Your task to perform on an android device: Go to display settings Image 0: 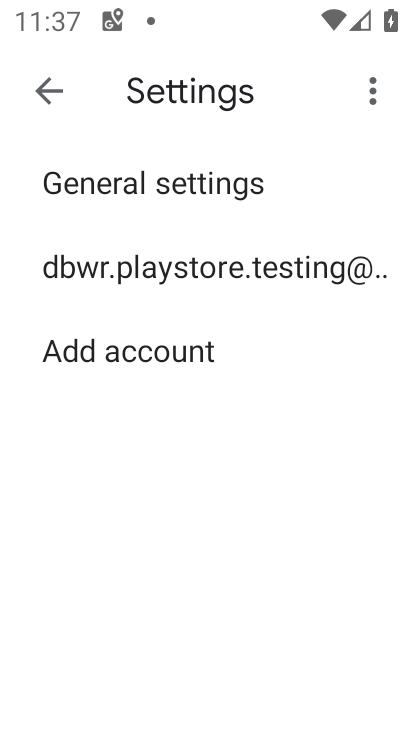
Step 0: press home button
Your task to perform on an android device: Go to display settings Image 1: 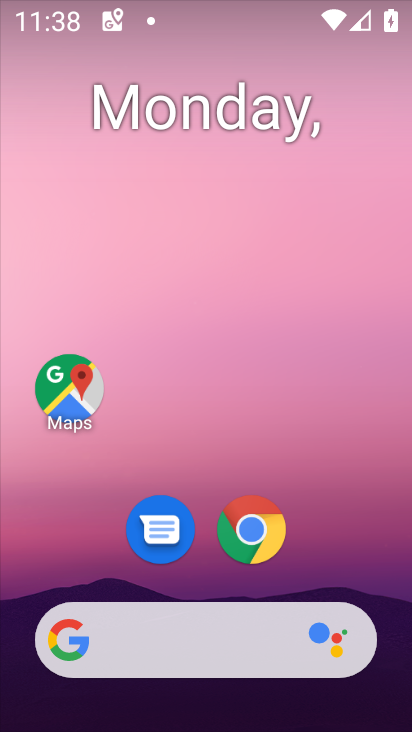
Step 1: drag from (284, 670) to (332, 162)
Your task to perform on an android device: Go to display settings Image 2: 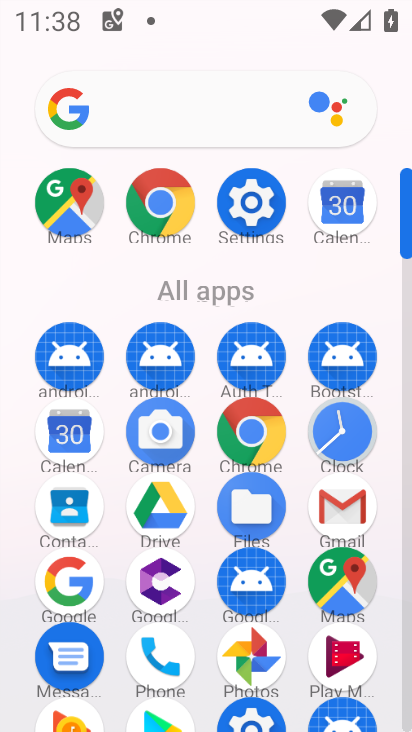
Step 2: click (245, 212)
Your task to perform on an android device: Go to display settings Image 3: 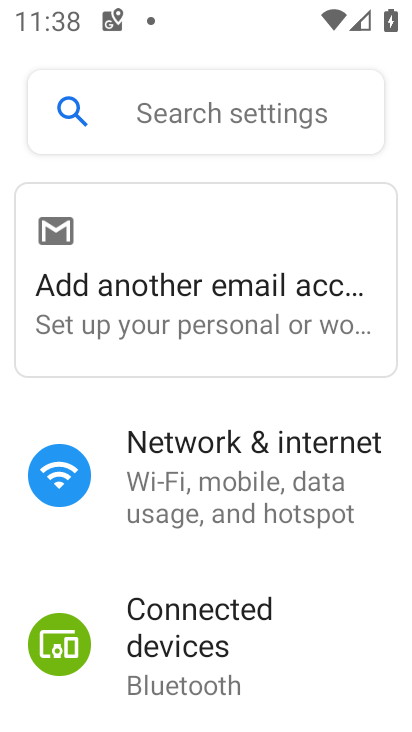
Step 3: drag from (153, 618) to (183, 196)
Your task to perform on an android device: Go to display settings Image 4: 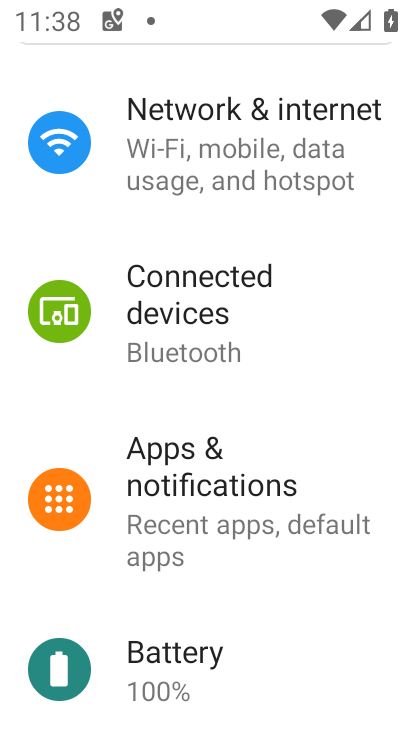
Step 4: drag from (225, 551) to (253, 203)
Your task to perform on an android device: Go to display settings Image 5: 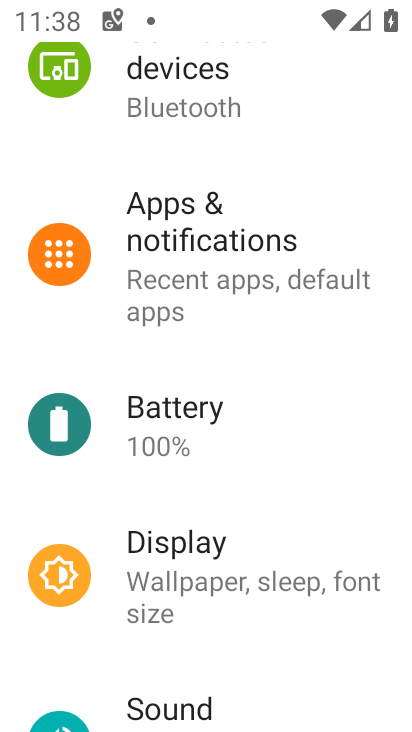
Step 5: click (171, 542)
Your task to perform on an android device: Go to display settings Image 6: 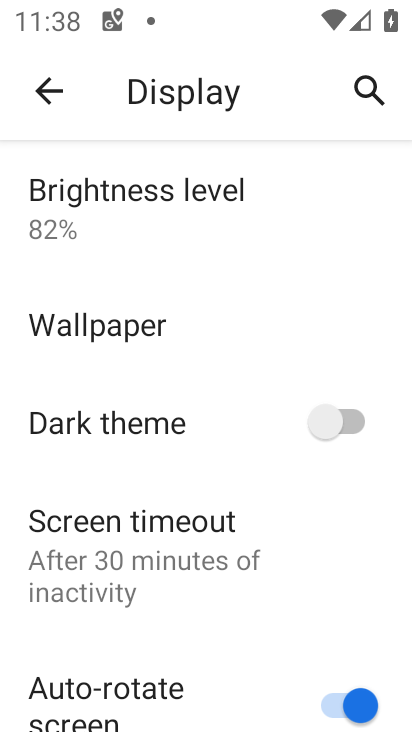
Step 6: task complete